Your task to perform on an android device: turn smart compose on in the gmail app Image 0: 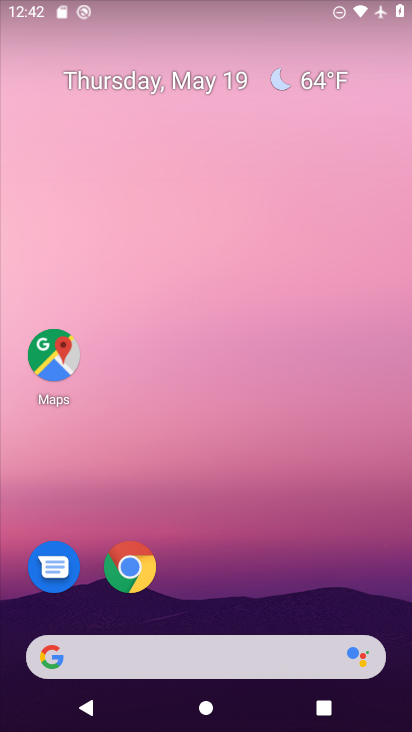
Step 0: drag from (296, 528) to (294, 176)
Your task to perform on an android device: turn smart compose on in the gmail app Image 1: 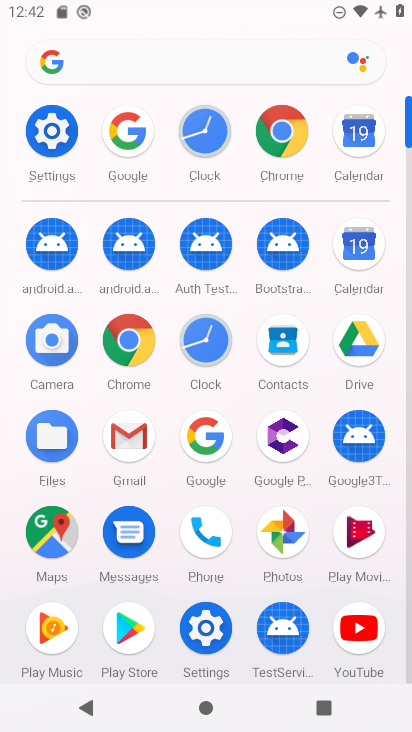
Step 1: click (132, 439)
Your task to perform on an android device: turn smart compose on in the gmail app Image 2: 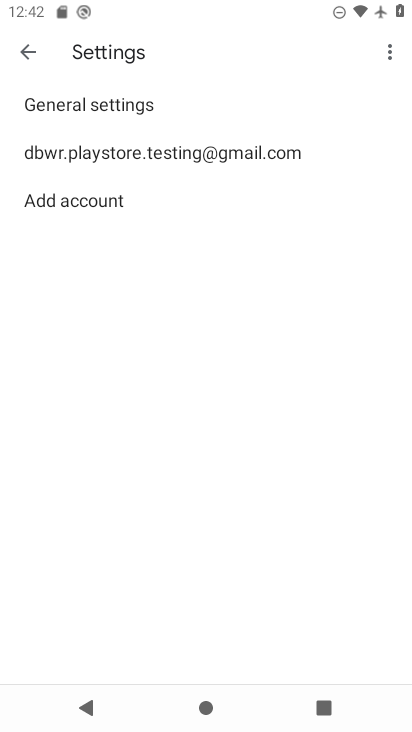
Step 2: click (68, 146)
Your task to perform on an android device: turn smart compose on in the gmail app Image 3: 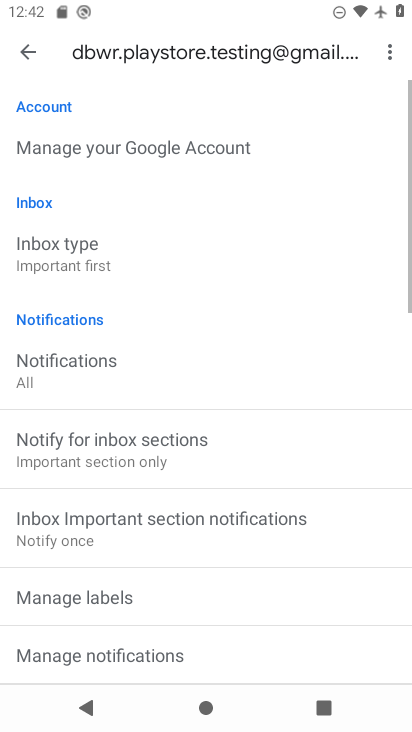
Step 3: task complete